Your task to perform on an android device: see tabs open on other devices in the chrome app Image 0: 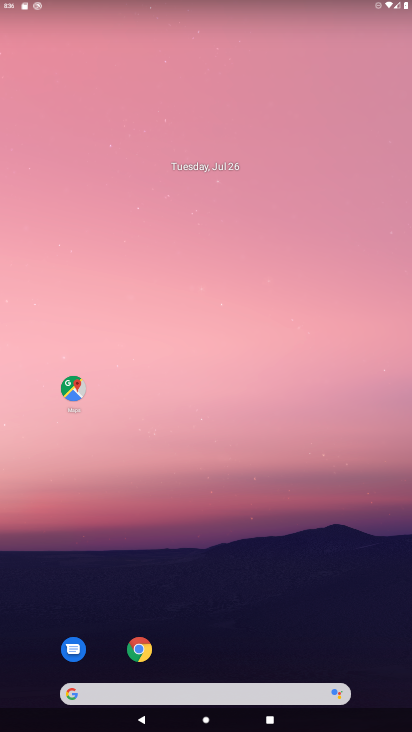
Step 0: click (140, 656)
Your task to perform on an android device: see tabs open on other devices in the chrome app Image 1: 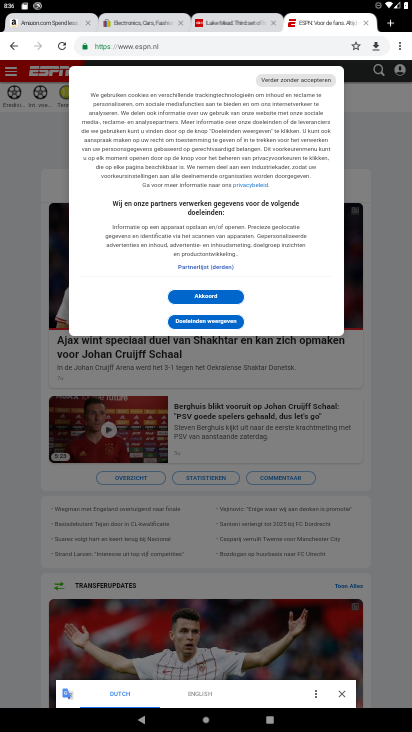
Step 1: click (402, 46)
Your task to perform on an android device: see tabs open on other devices in the chrome app Image 2: 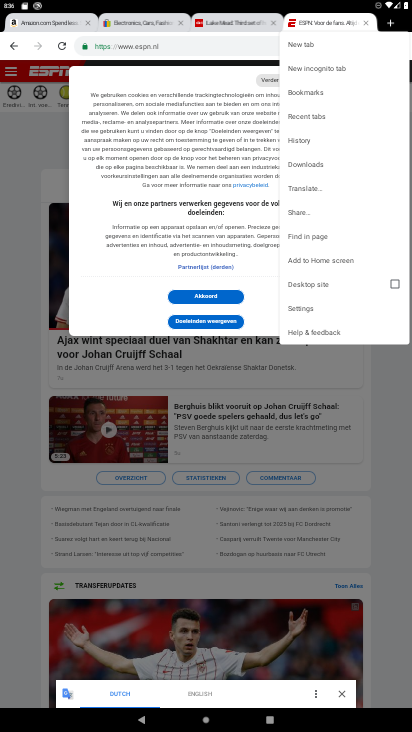
Step 2: click (321, 124)
Your task to perform on an android device: see tabs open on other devices in the chrome app Image 3: 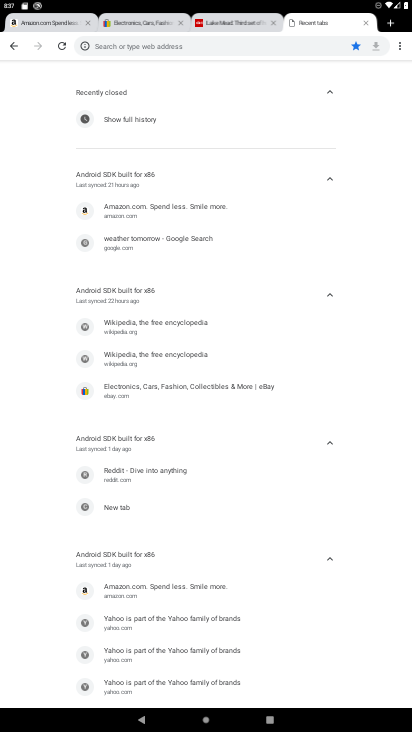
Step 3: task complete